Your task to perform on an android device: Search for vegetarian restaurants on Maps Image 0: 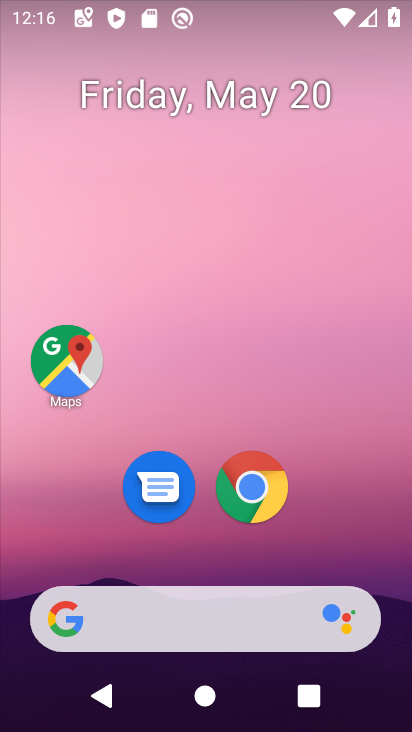
Step 0: click (62, 367)
Your task to perform on an android device: Search for vegetarian restaurants on Maps Image 1: 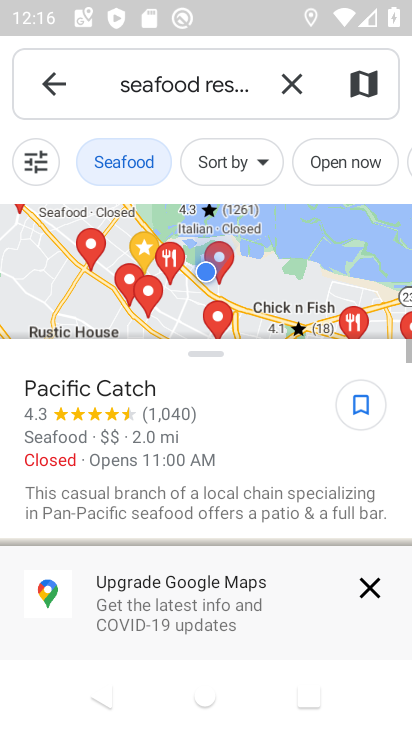
Step 1: click (56, 73)
Your task to perform on an android device: Search for vegetarian restaurants on Maps Image 2: 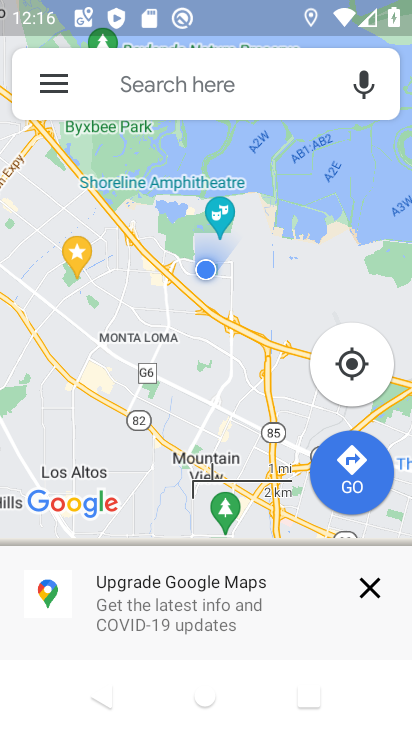
Step 2: click (160, 95)
Your task to perform on an android device: Search for vegetarian restaurants on Maps Image 3: 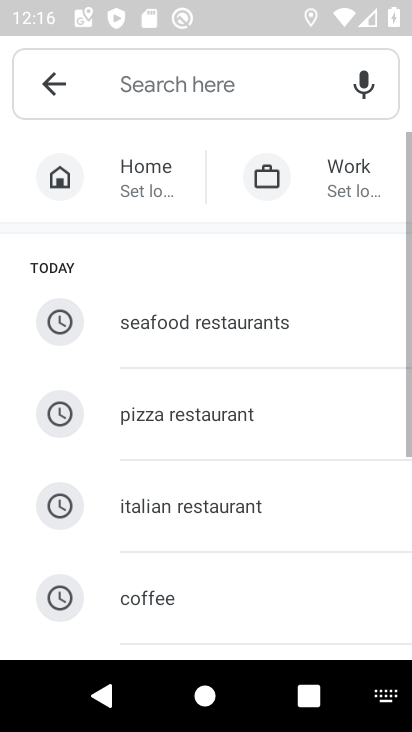
Step 3: drag from (174, 571) to (237, 257)
Your task to perform on an android device: Search for vegetarian restaurants on Maps Image 4: 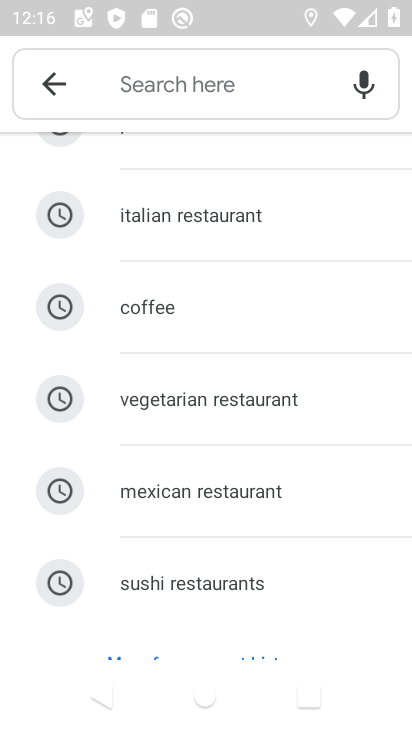
Step 4: click (196, 415)
Your task to perform on an android device: Search for vegetarian restaurants on Maps Image 5: 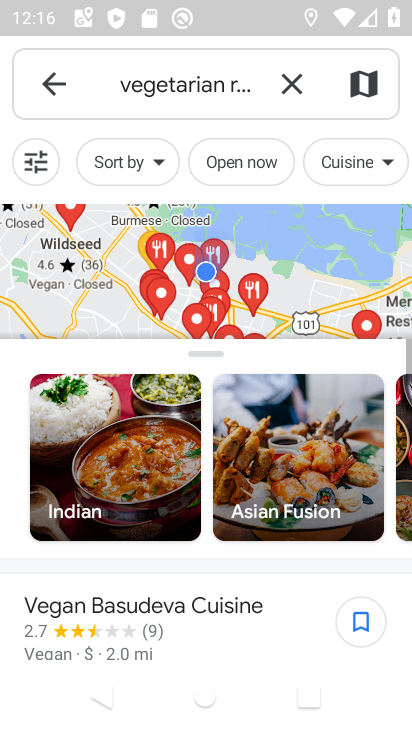
Step 5: task complete